Your task to perform on an android device: turn off improve location accuracy Image 0: 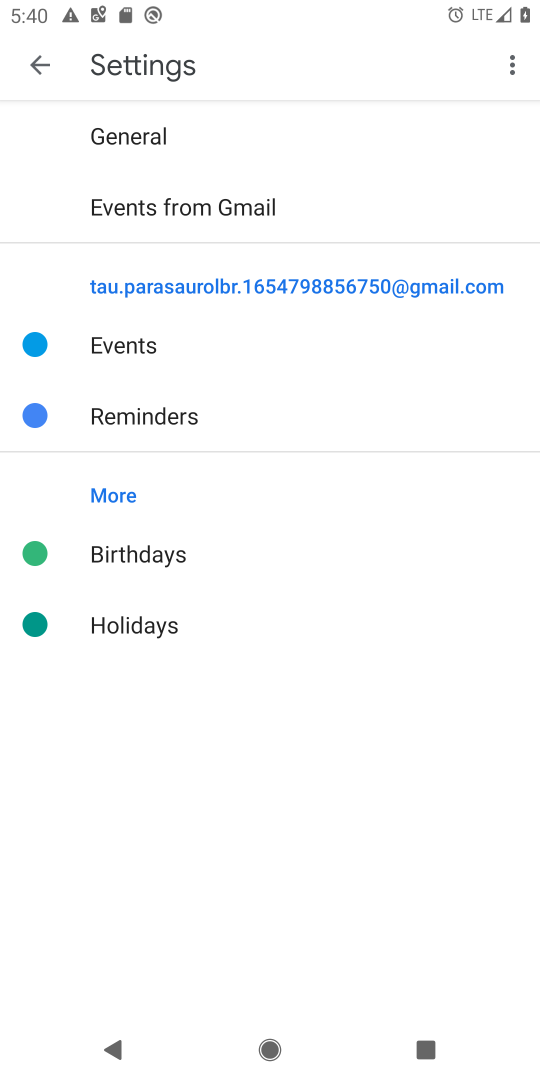
Step 0: press back button
Your task to perform on an android device: turn off improve location accuracy Image 1: 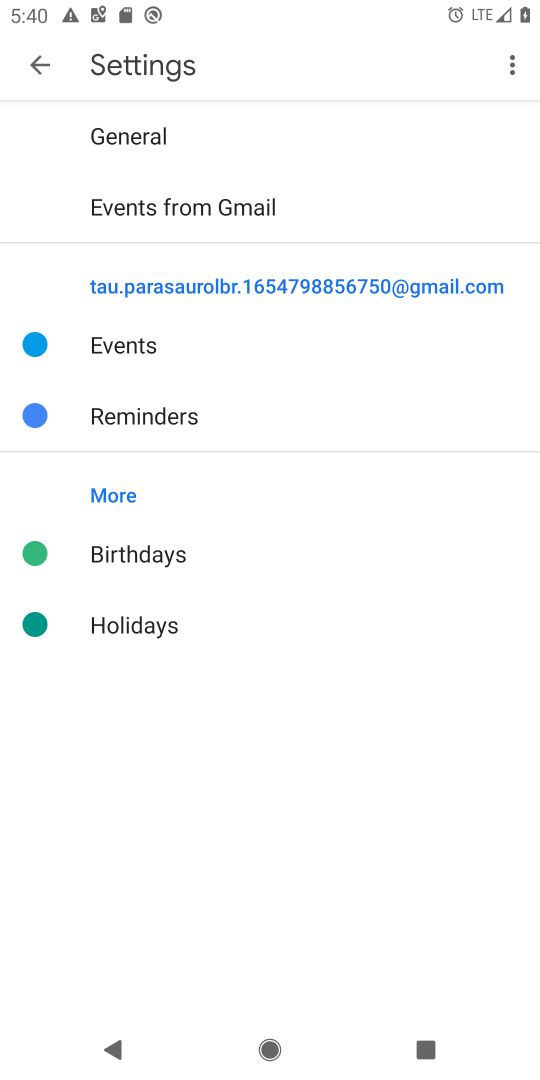
Step 1: press back button
Your task to perform on an android device: turn off improve location accuracy Image 2: 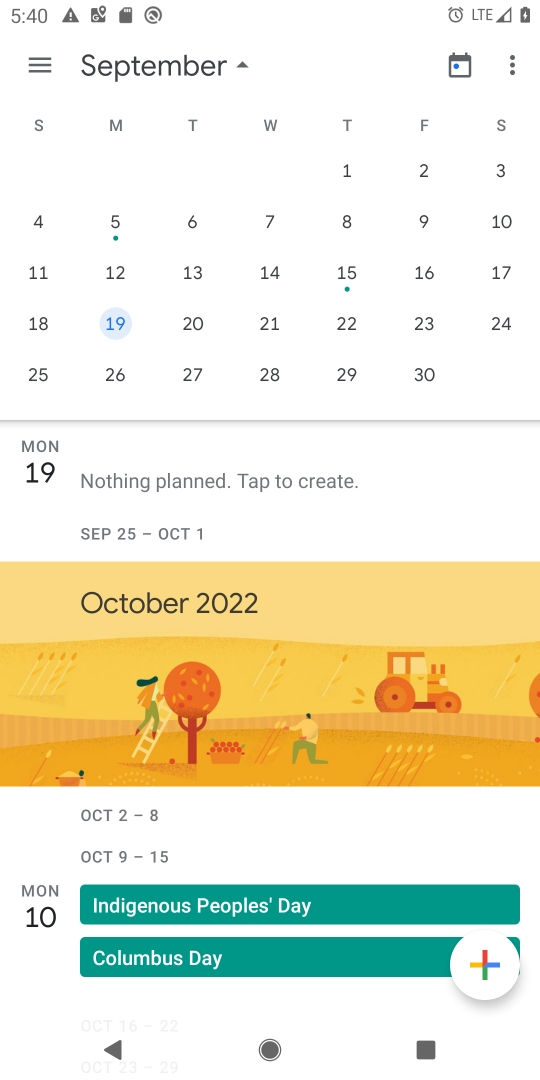
Step 2: press back button
Your task to perform on an android device: turn off improve location accuracy Image 3: 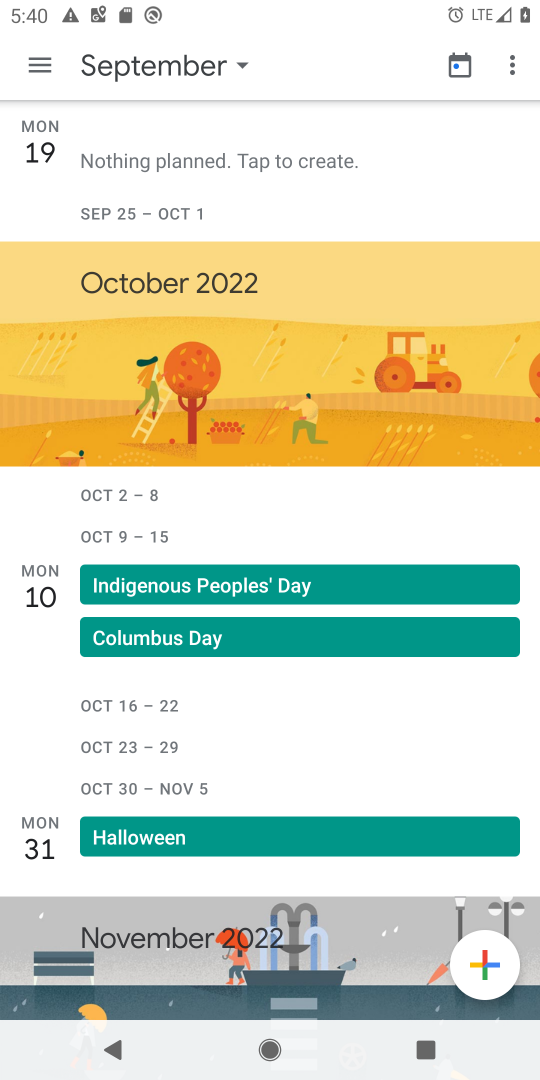
Step 3: press back button
Your task to perform on an android device: turn off improve location accuracy Image 4: 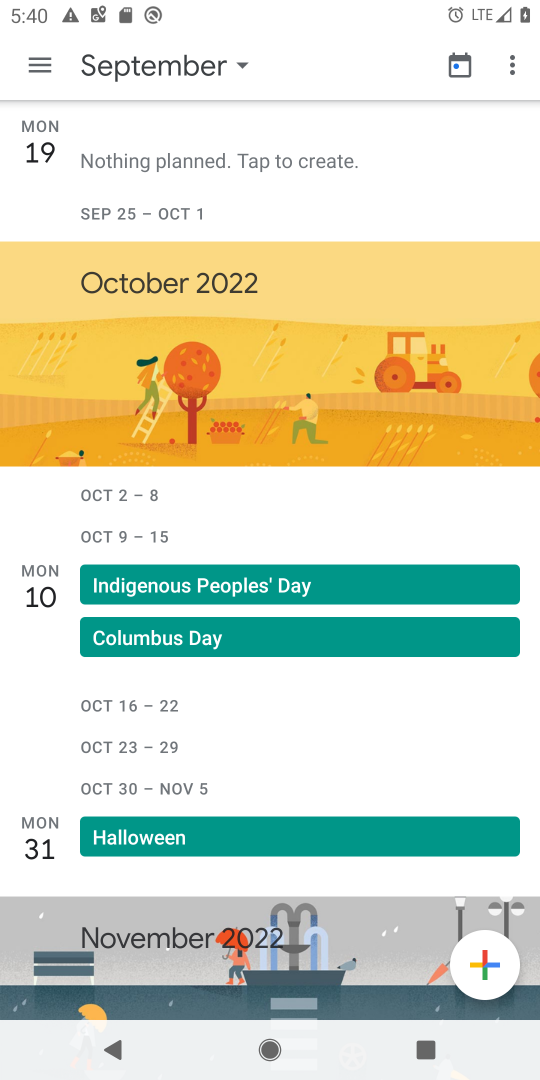
Step 4: press back button
Your task to perform on an android device: turn off improve location accuracy Image 5: 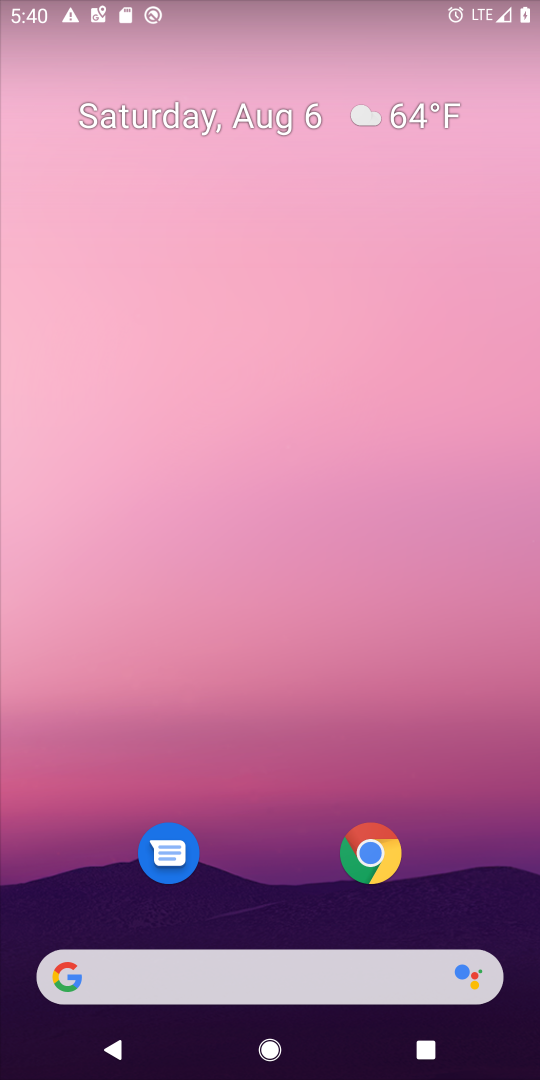
Step 5: press back button
Your task to perform on an android device: turn off improve location accuracy Image 6: 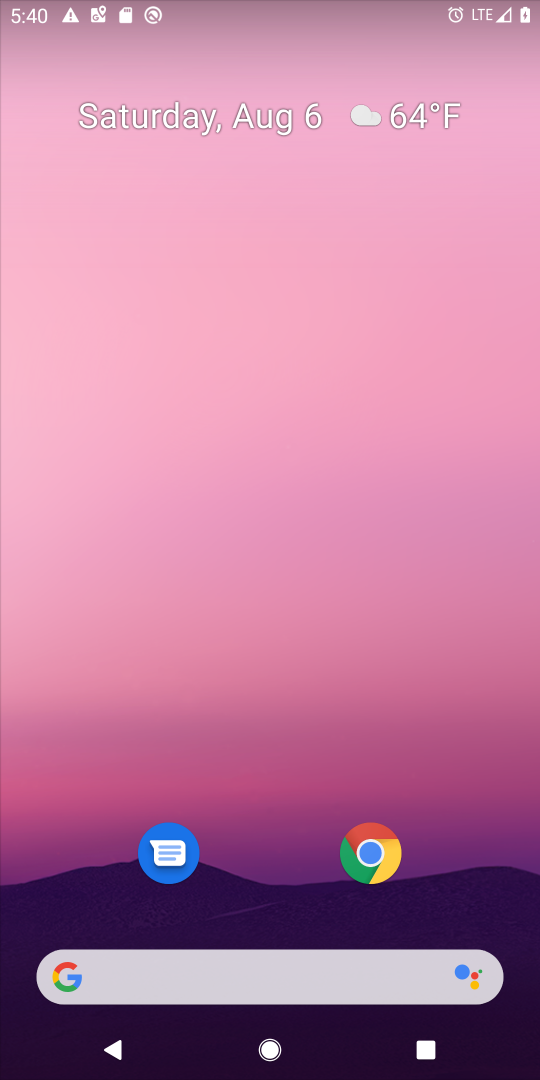
Step 6: press back button
Your task to perform on an android device: turn off improve location accuracy Image 7: 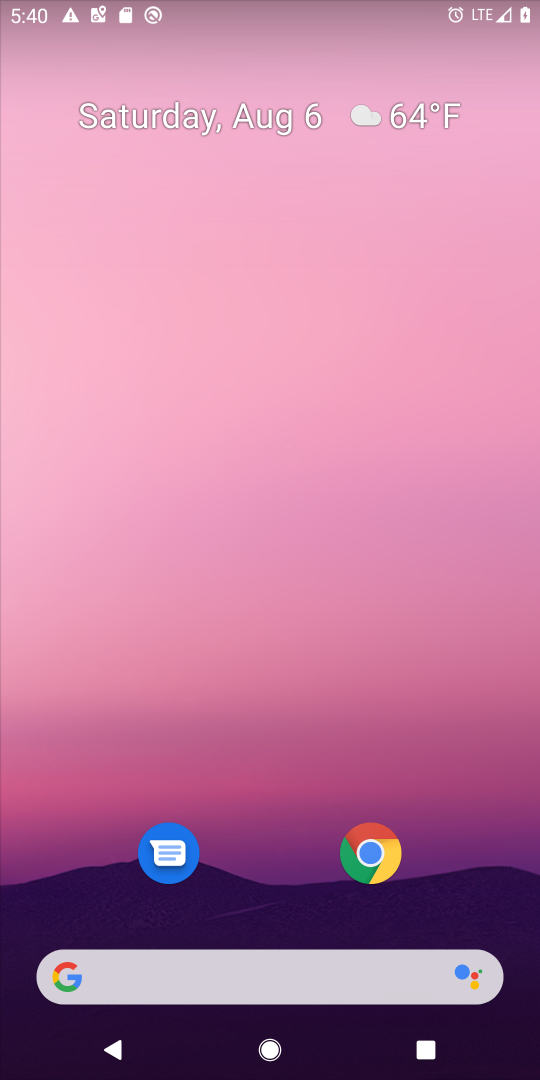
Step 7: drag from (244, 897) to (366, 119)
Your task to perform on an android device: turn off improve location accuracy Image 8: 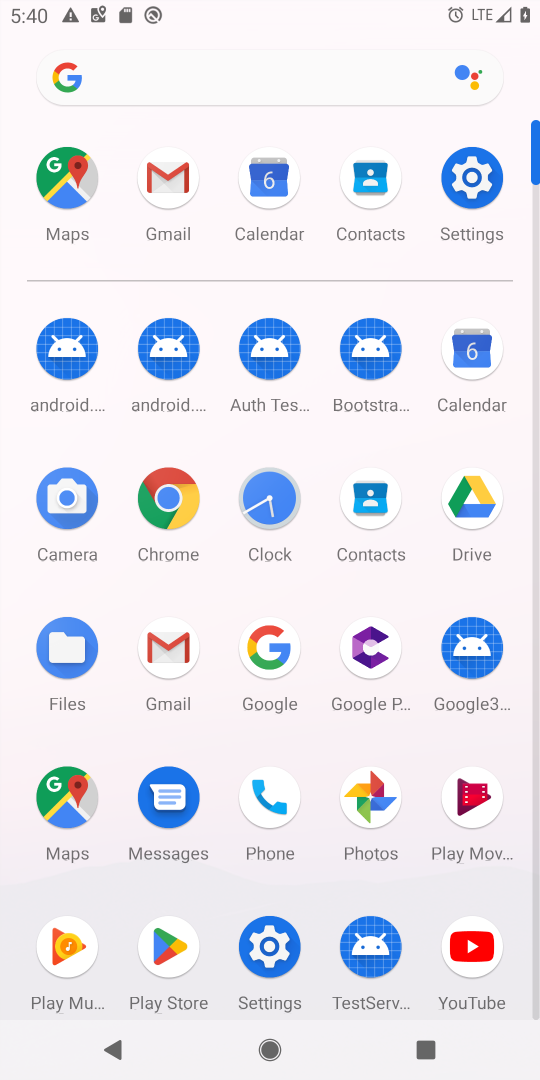
Step 8: click (457, 186)
Your task to perform on an android device: turn off improve location accuracy Image 9: 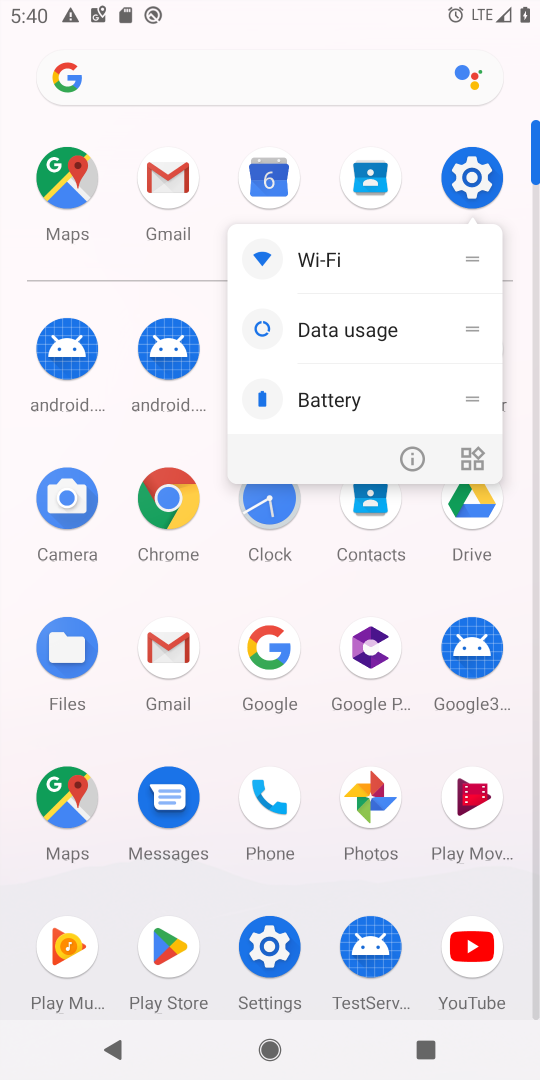
Step 9: click (463, 174)
Your task to perform on an android device: turn off improve location accuracy Image 10: 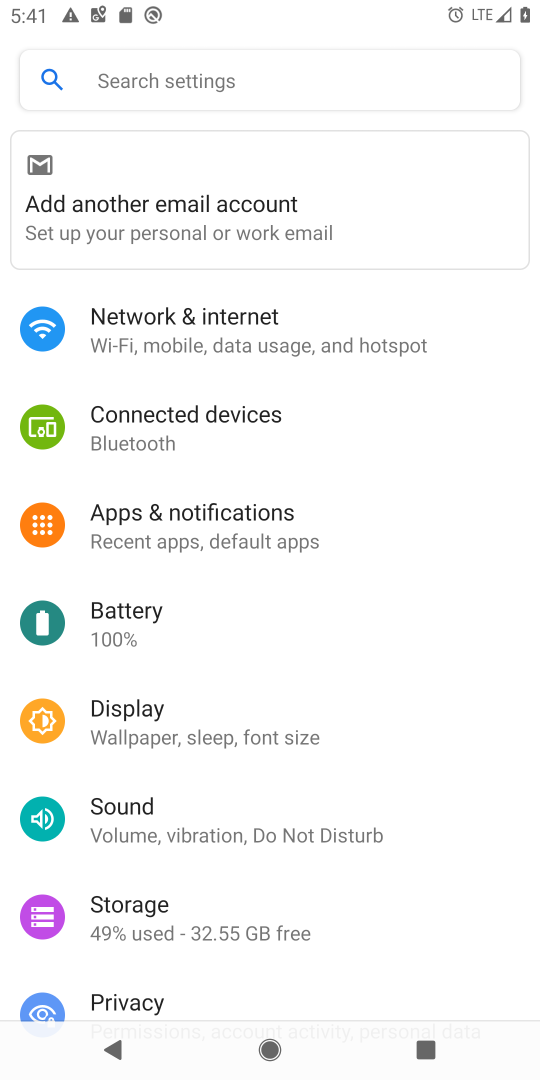
Step 10: drag from (155, 941) to (299, 98)
Your task to perform on an android device: turn off improve location accuracy Image 11: 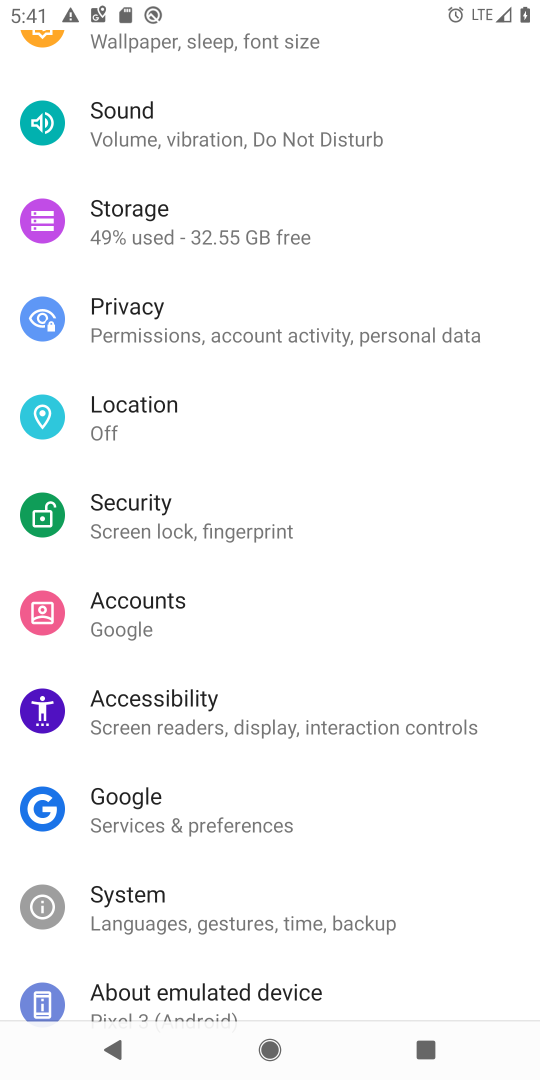
Step 11: click (134, 415)
Your task to perform on an android device: turn off improve location accuracy Image 12: 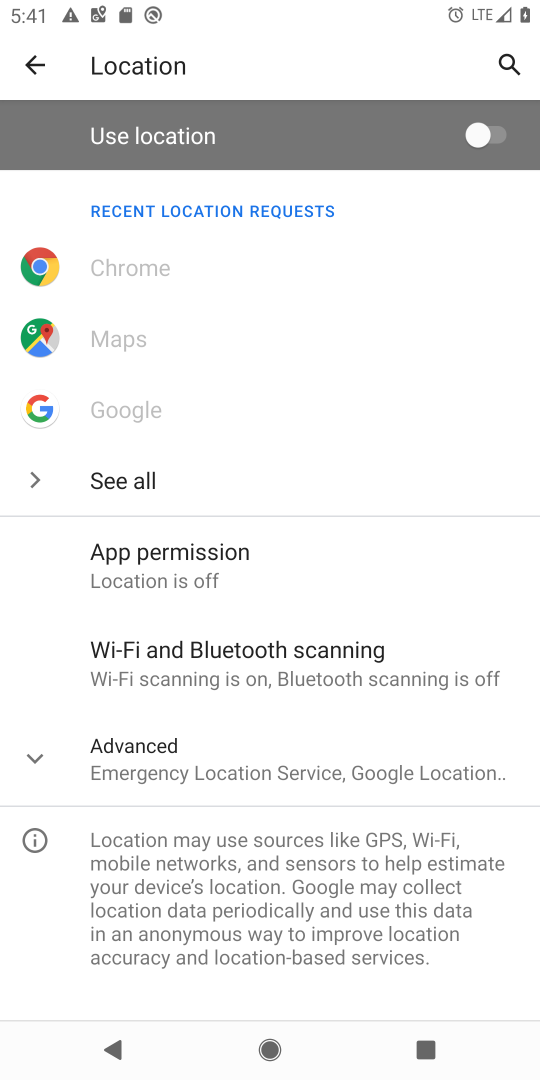
Step 12: click (193, 762)
Your task to perform on an android device: turn off improve location accuracy Image 13: 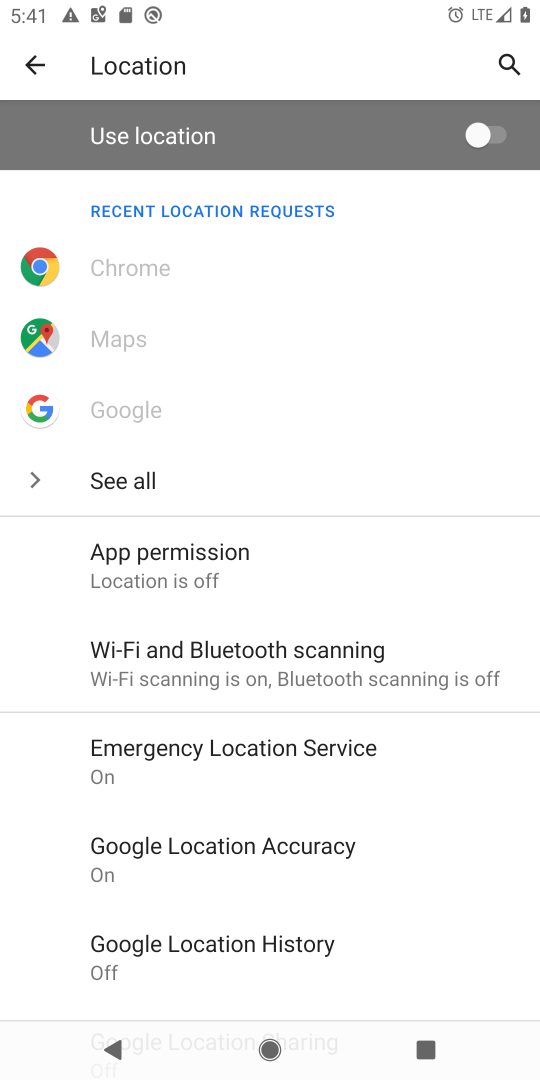
Step 13: click (297, 843)
Your task to perform on an android device: turn off improve location accuracy Image 14: 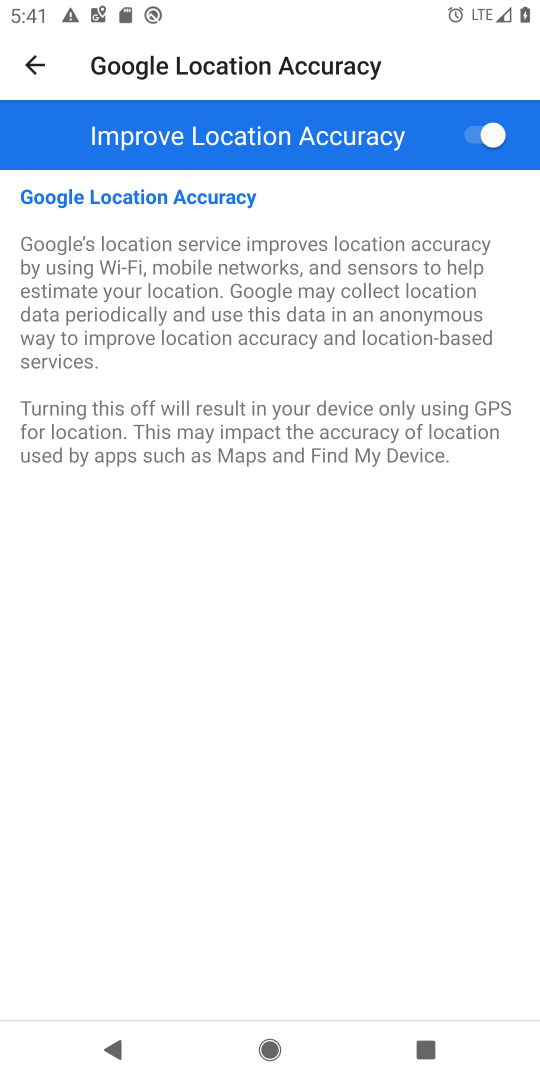
Step 14: click (475, 135)
Your task to perform on an android device: turn off improve location accuracy Image 15: 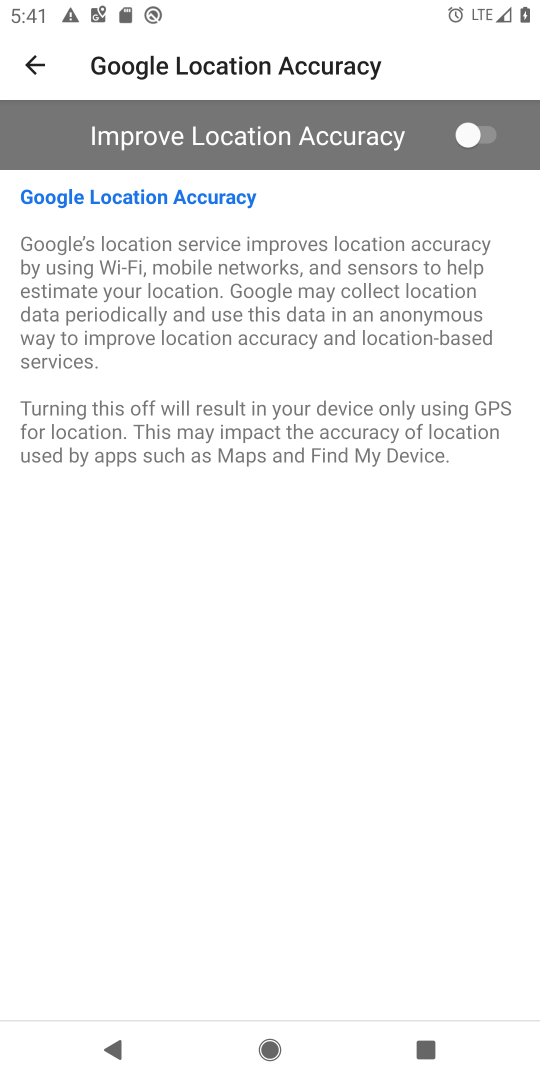
Step 15: task complete